Your task to perform on an android device: turn off data saver in the chrome app Image 0: 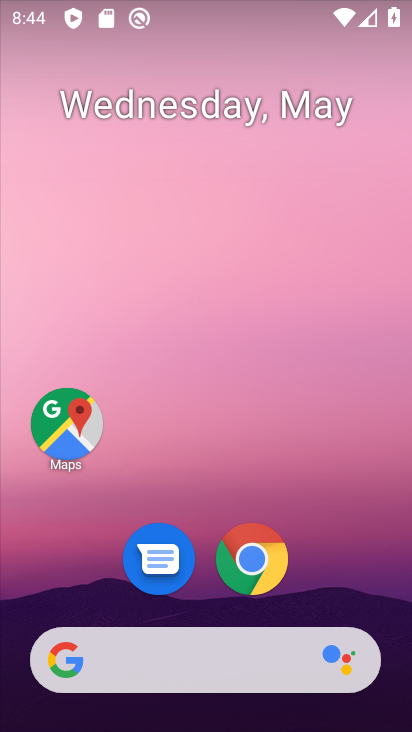
Step 0: click (274, 558)
Your task to perform on an android device: turn off data saver in the chrome app Image 1: 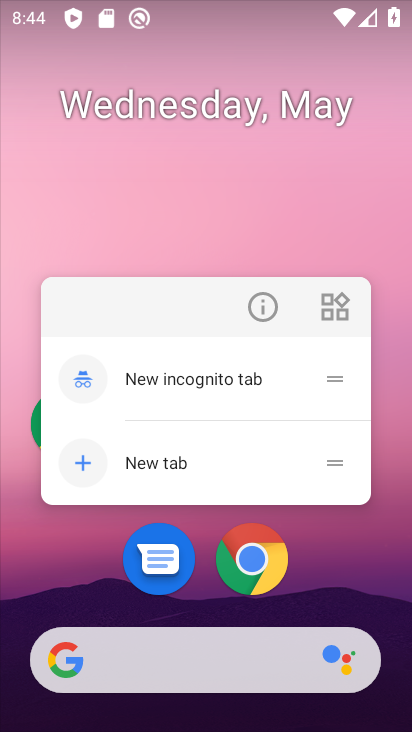
Step 1: click (251, 557)
Your task to perform on an android device: turn off data saver in the chrome app Image 2: 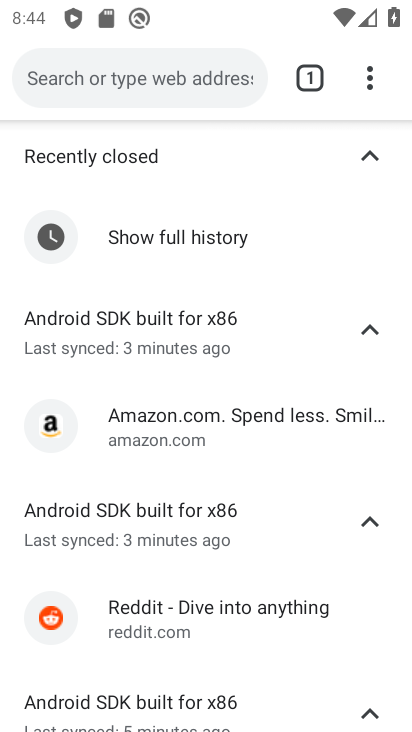
Step 2: drag from (384, 79) to (149, 640)
Your task to perform on an android device: turn off data saver in the chrome app Image 3: 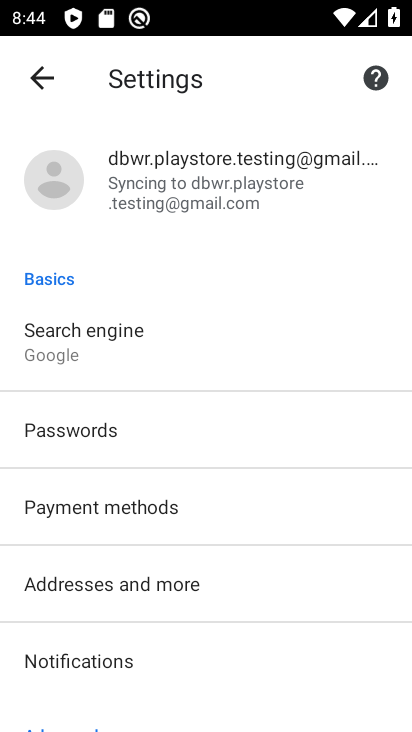
Step 3: drag from (120, 687) to (274, 220)
Your task to perform on an android device: turn off data saver in the chrome app Image 4: 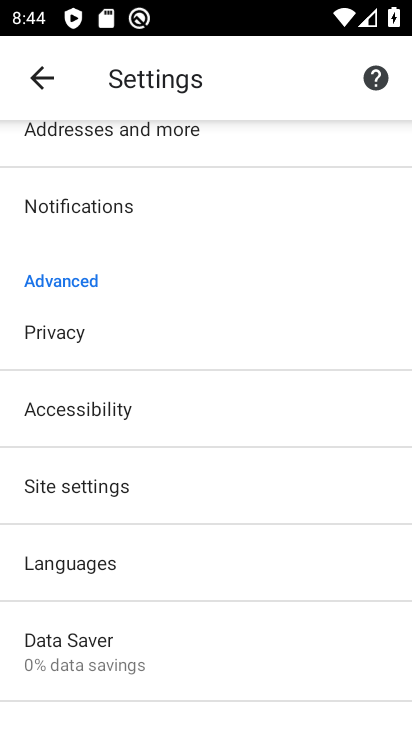
Step 4: click (140, 650)
Your task to perform on an android device: turn off data saver in the chrome app Image 5: 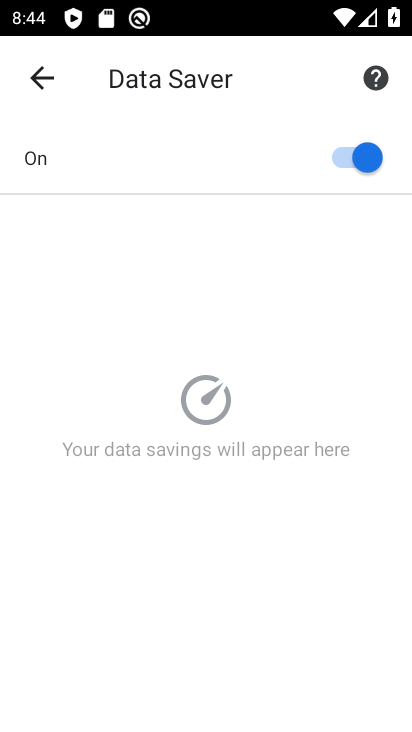
Step 5: click (358, 152)
Your task to perform on an android device: turn off data saver in the chrome app Image 6: 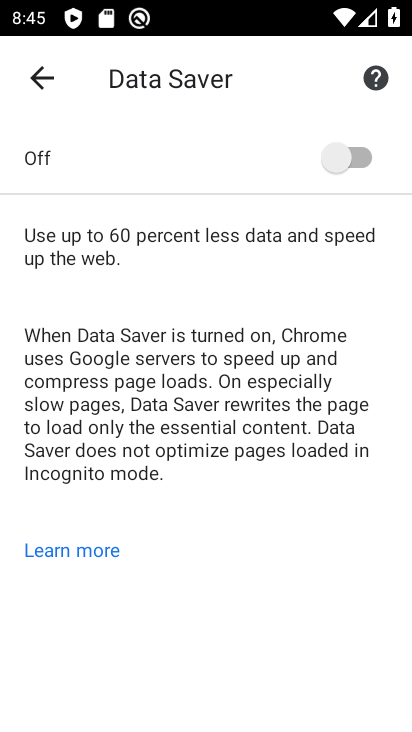
Step 6: task complete